Your task to perform on an android device: add a contact Image 0: 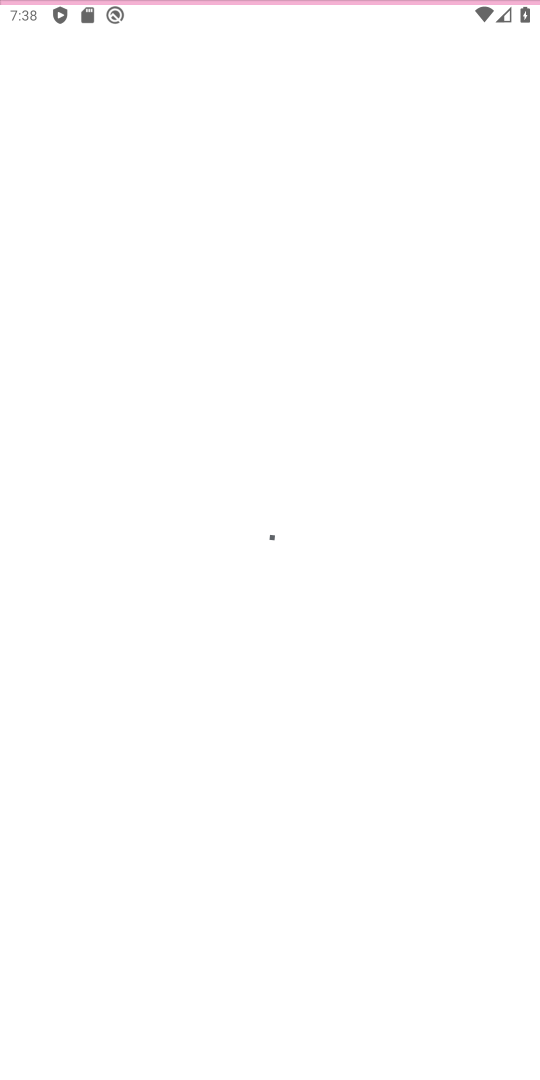
Step 0: press home button
Your task to perform on an android device: add a contact Image 1: 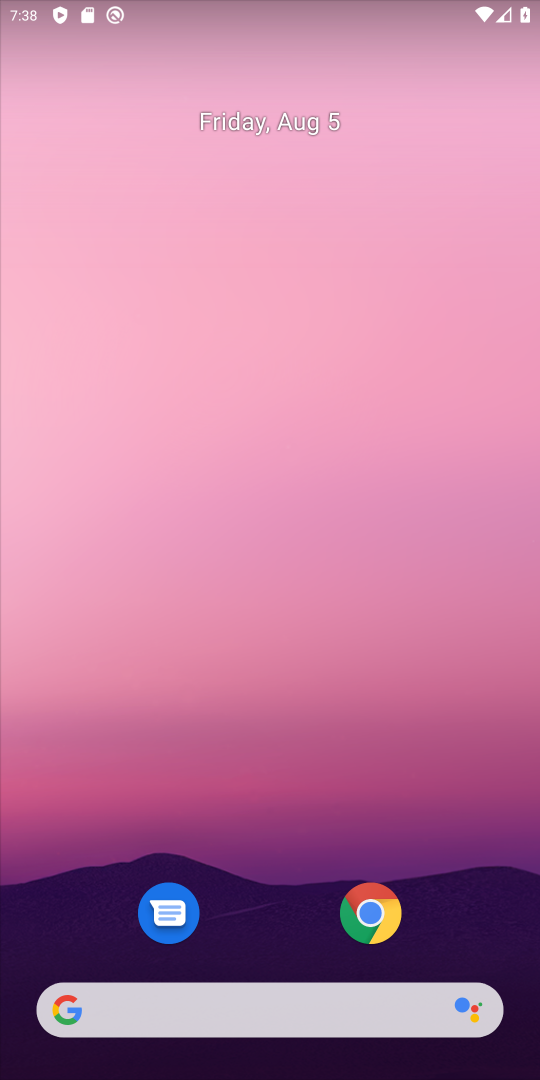
Step 1: drag from (259, 903) to (316, 398)
Your task to perform on an android device: add a contact Image 2: 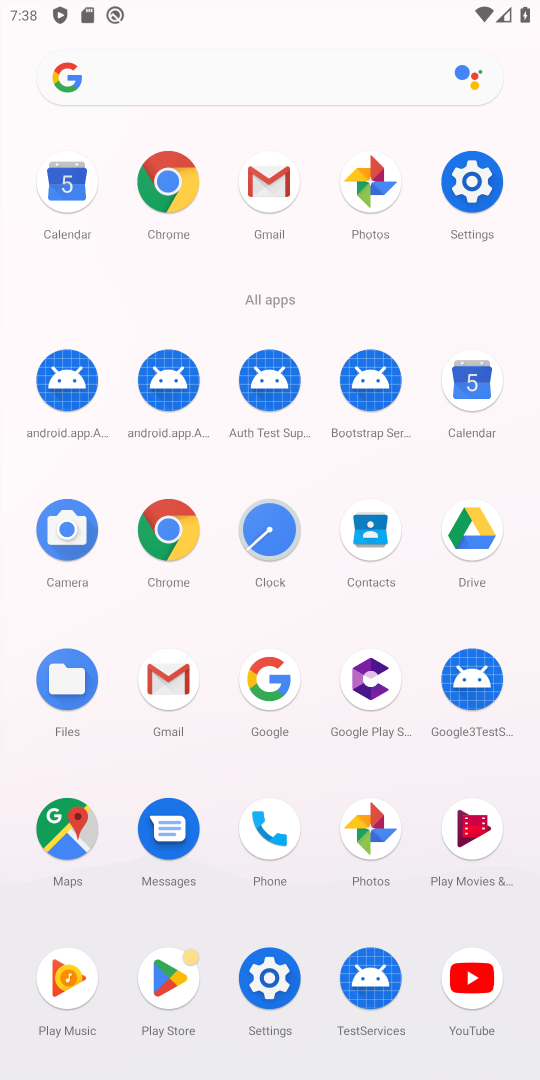
Step 2: click (374, 535)
Your task to perform on an android device: add a contact Image 3: 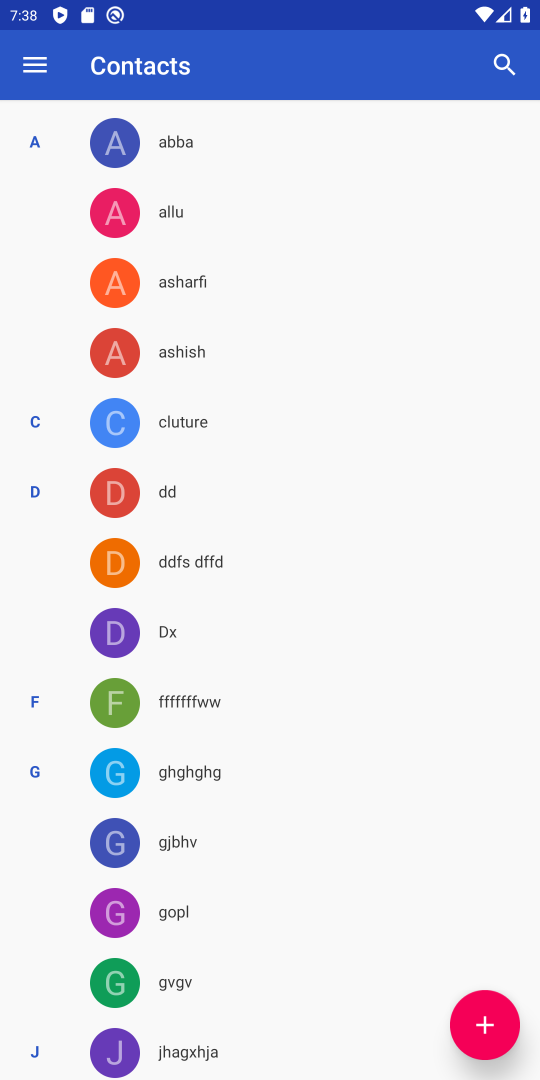
Step 3: click (480, 1039)
Your task to perform on an android device: add a contact Image 4: 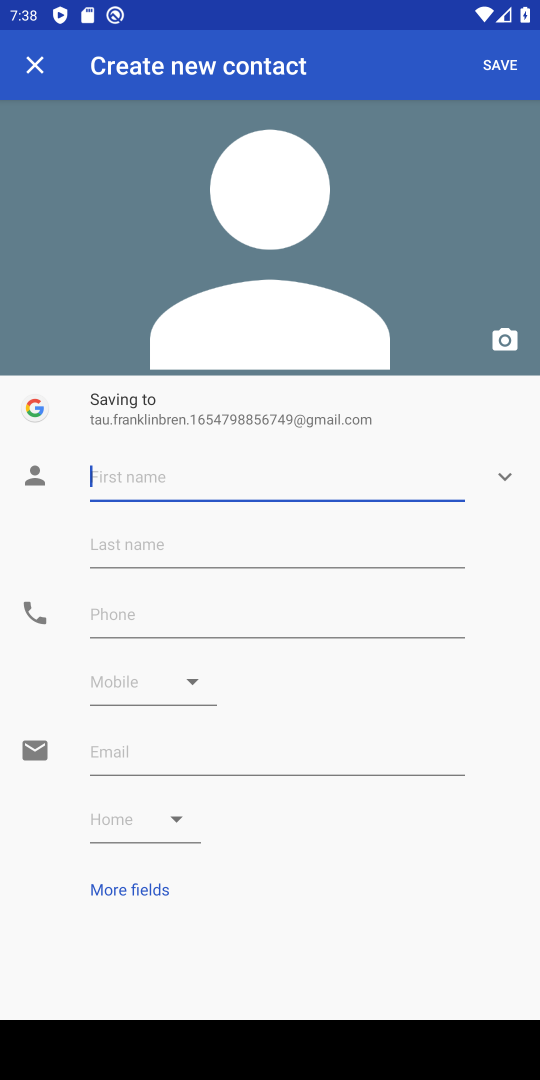
Step 4: type "ggg"
Your task to perform on an android device: add a contact Image 5: 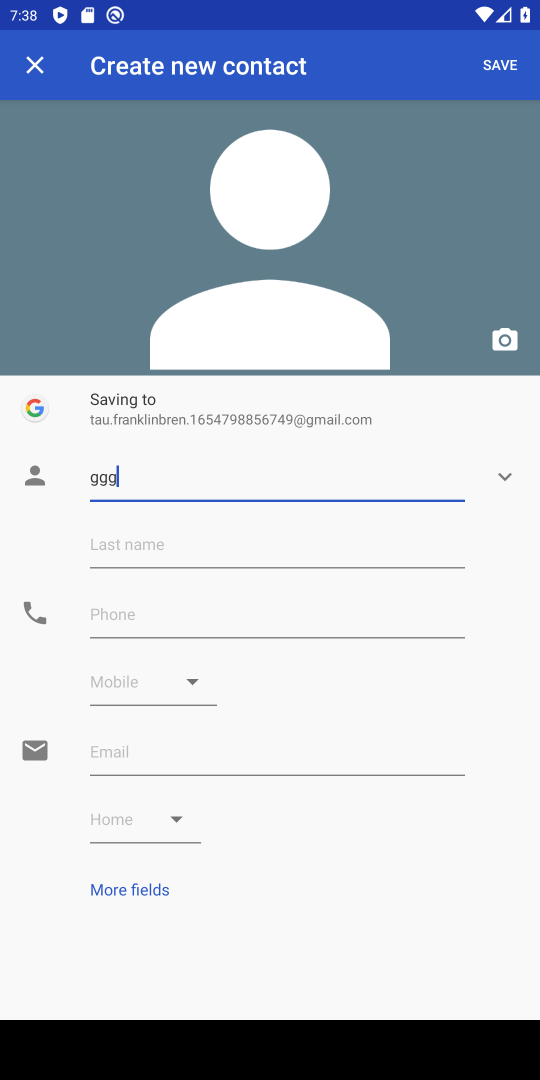
Step 5: click (219, 599)
Your task to perform on an android device: add a contact Image 6: 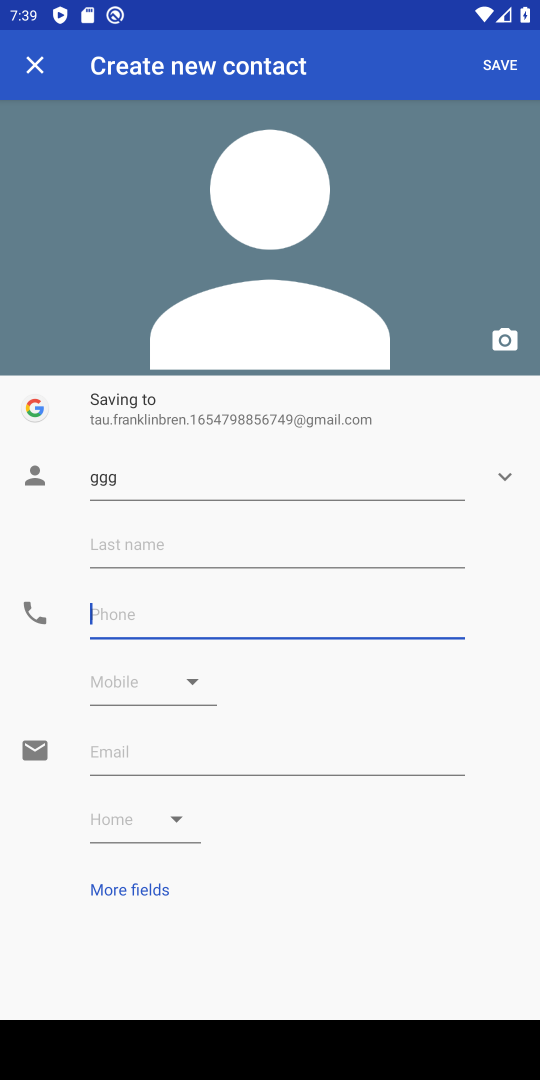
Step 6: type "1223334455566"
Your task to perform on an android device: add a contact Image 7: 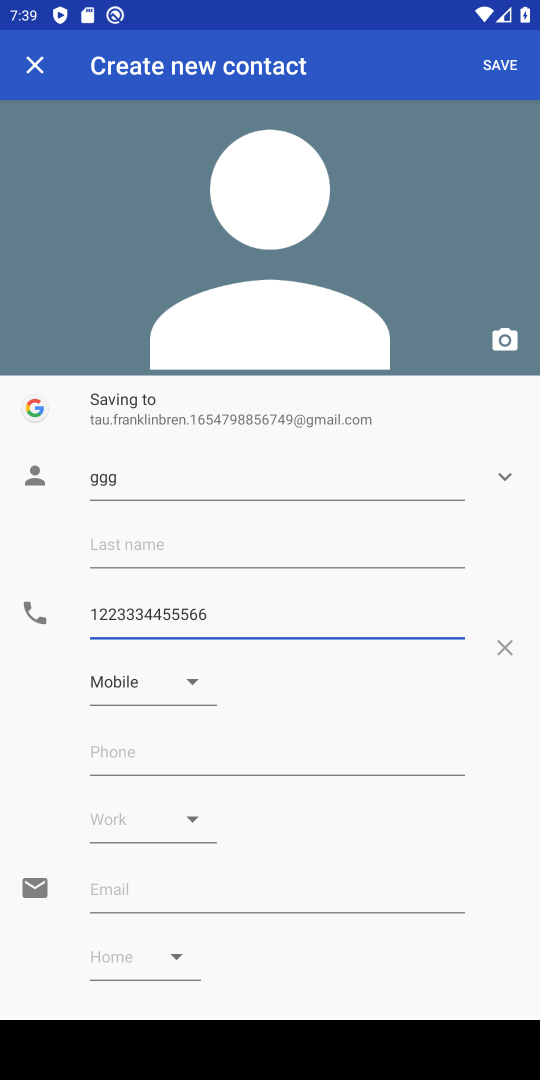
Step 7: click (491, 58)
Your task to perform on an android device: add a contact Image 8: 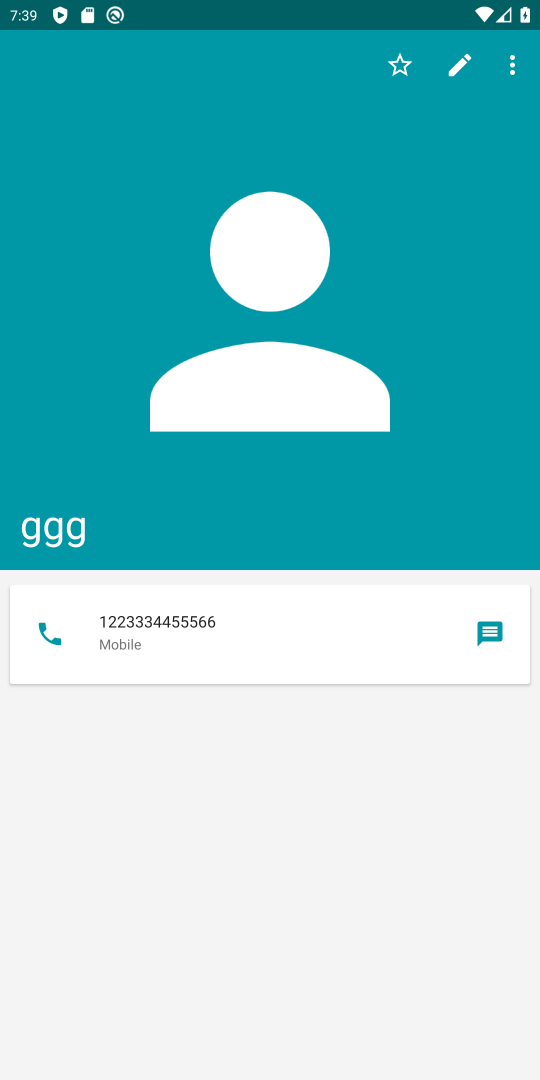
Step 8: task complete